Your task to perform on an android device: Go to Maps Image 0: 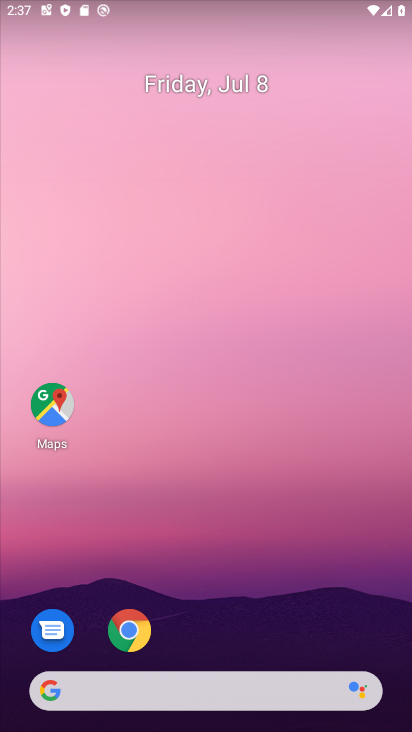
Step 0: drag from (292, 614) to (236, 458)
Your task to perform on an android device: Go to Maps Image 1: 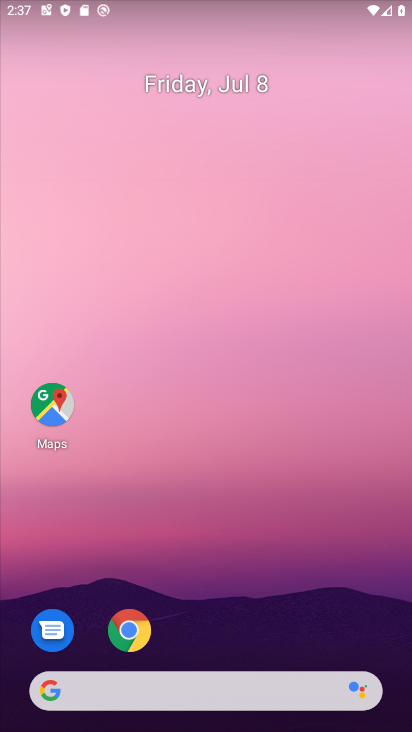
Step 1: click (60, 396)
Your task to perform on an android device: Go to Maps Image 2: 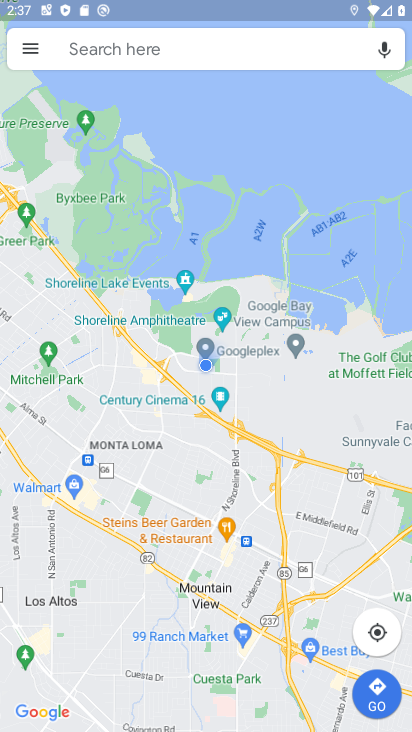
Step 2: task complete